Your task to perform on an android device: Search for sushi restaurants on Maps Image 0: 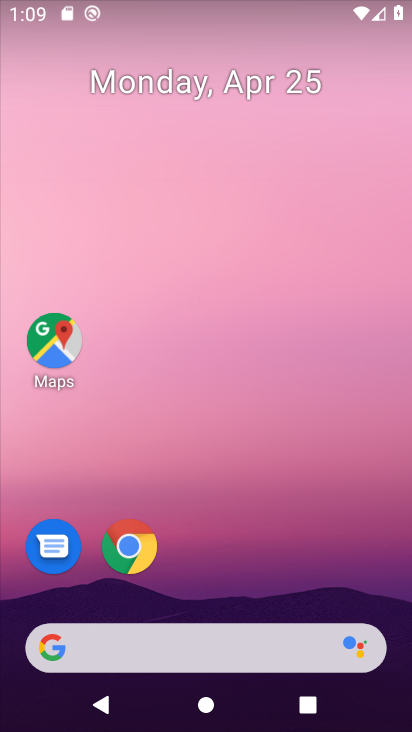
Step 0: drag from (356, 581) to (354, 100)
Your task to perform on an android device: Search for sushi restaurants on Maps Image 1: 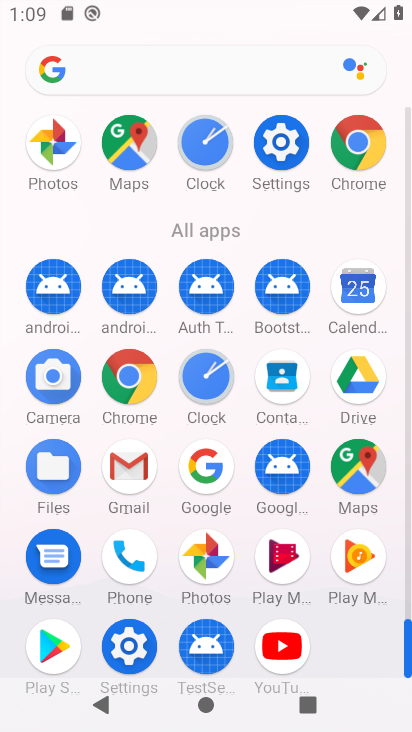
Step 1: click (369, 473)
Your task to perform on an android device: Search for sushi restaurants on Maps Image 2: 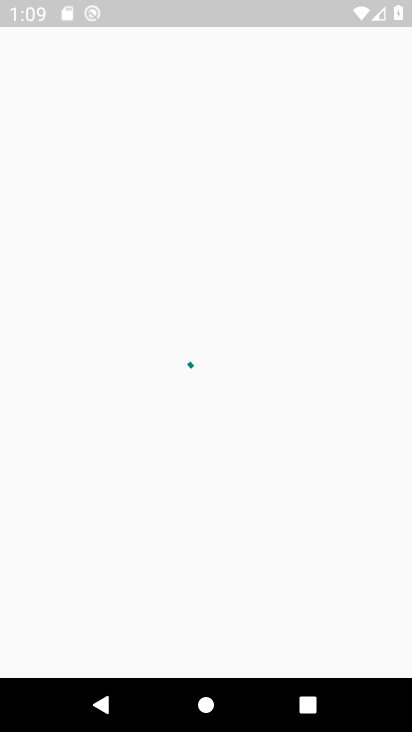
Step 2: click (259, 69)
Your task to perform on an android device: Search for sushi restaurants on Maps Image 3: 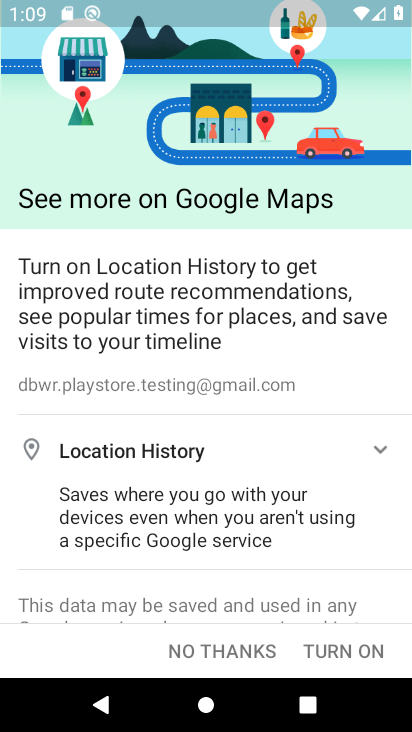
Step 3: click (244, 645)
Your task to perform on an android device: Search for sushi restaurants on Maps Image 4: 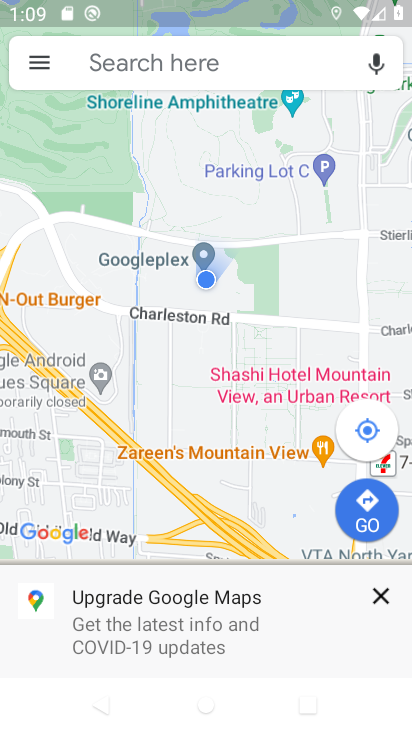
Step 4: click (226, 70)
Your task to perform on an android device: Search for sushi restaurants on Maps Image 5: 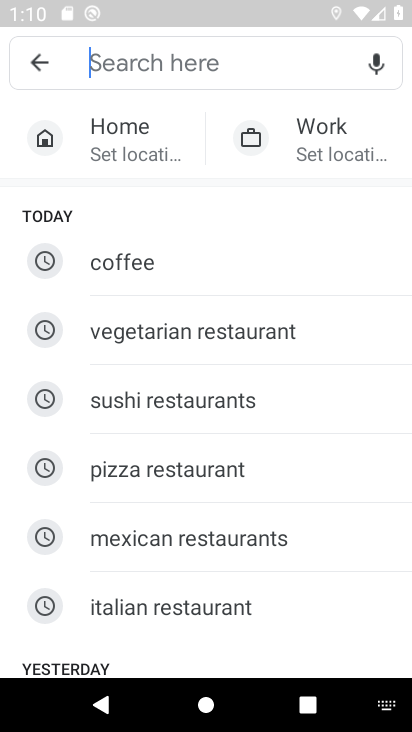
Step 5: type "sushi restaurants"
Your task to perform on an android device: Search for sushi restaurants on Maps Image 6: 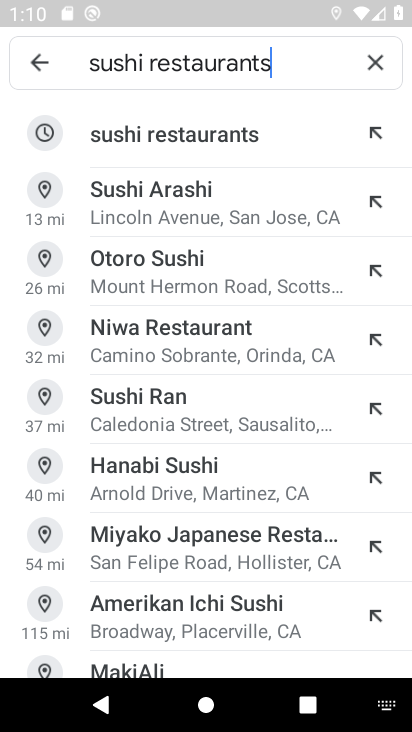
Step 6: click (216, 118)
Your task to perform on an android device: Search for sushi restaurants on Maps Image 7: 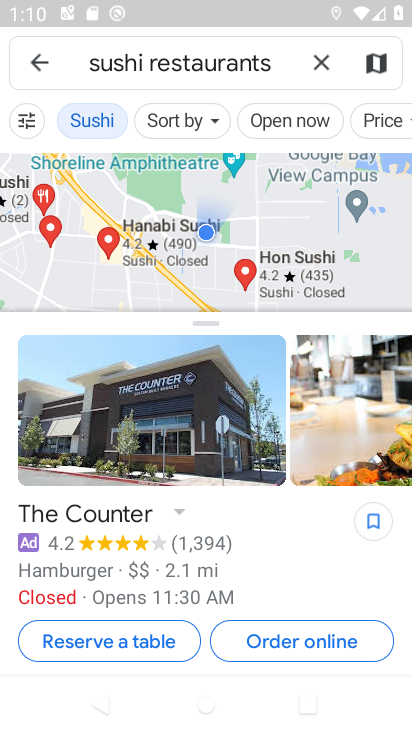
Step 7: task complete